Your task to perform on an android device: Go to Reddit.com Image 0: 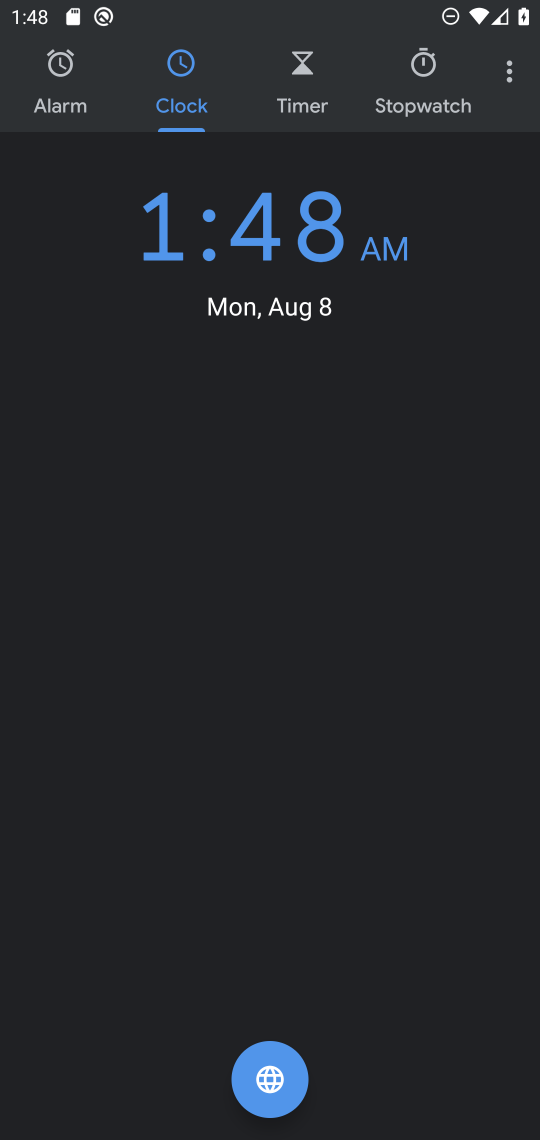
Step 0: press home button
Your task to perform on an android device: Go to Reddit.com Image 1: 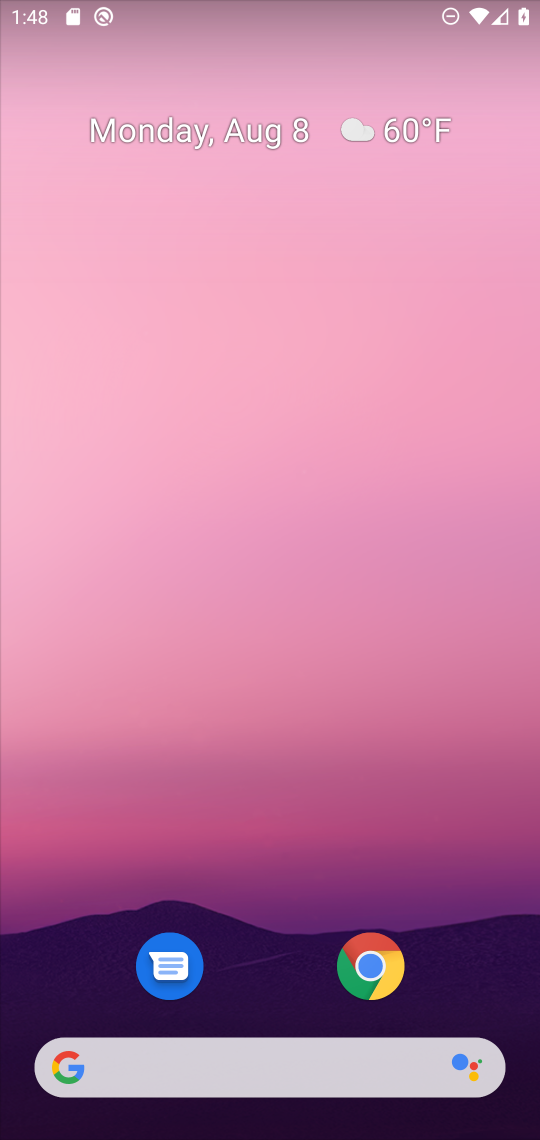
Step 1: click (387, 967)
Your task to perform on an android device: Go to Reddit.com Image 2: 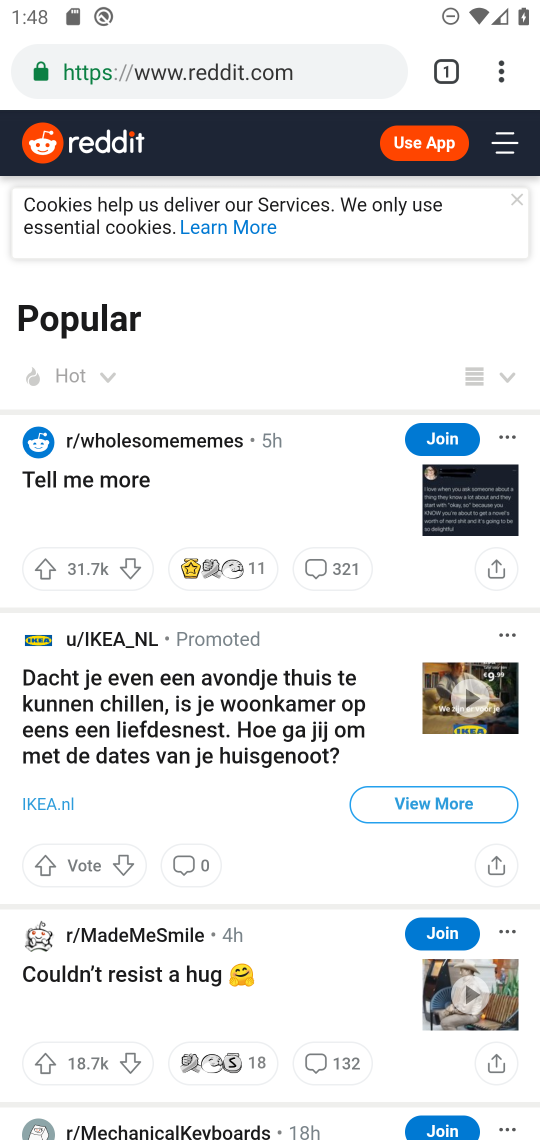
Step 2: task complete